Your task to perform on an android device: toggle notifications settings in the gmail app Image 0: 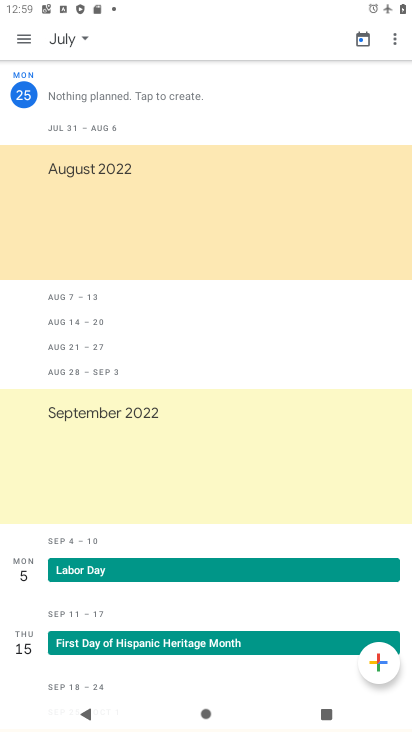
Step 0: press home button
Your task to perform on an android device: toggle notifications settings in the gmail app Image 1: 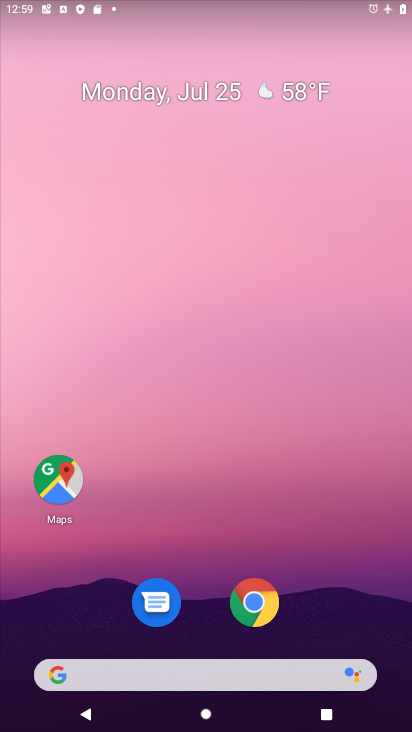
Step 1: drag from (193, 560) to (184, 183)
Your task to perform on an android device: toggle notifications settings in the gmail app Image 2: 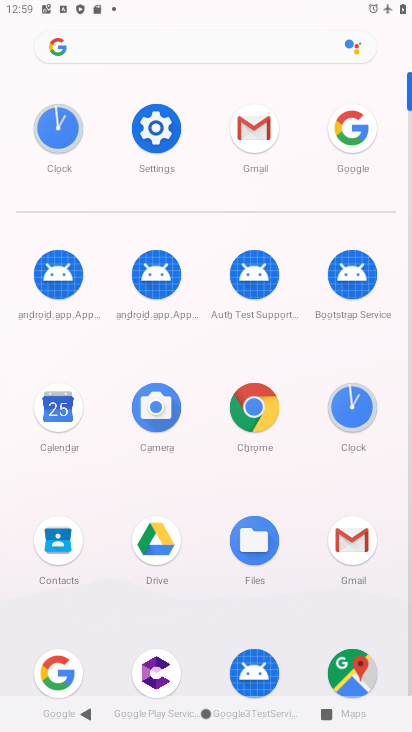
Step 2: click (235, 143)
Your task to perform on an android device: toggle notifications settings in the gmail app Image 3: 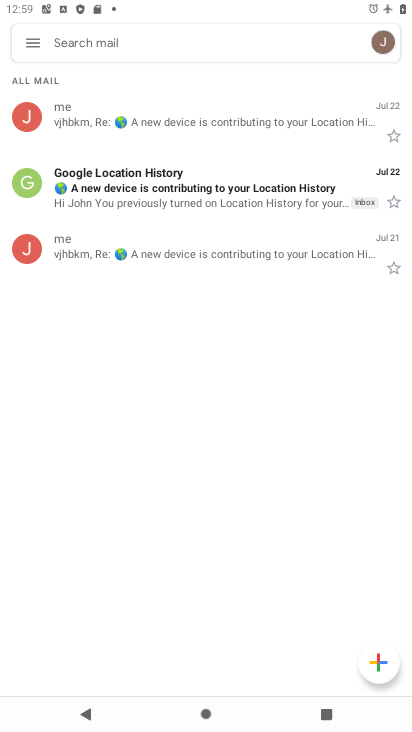
Step 3: click (32, 49)
Your task to perform on an android device: toggle notifications settings in the gmail app Image 4: 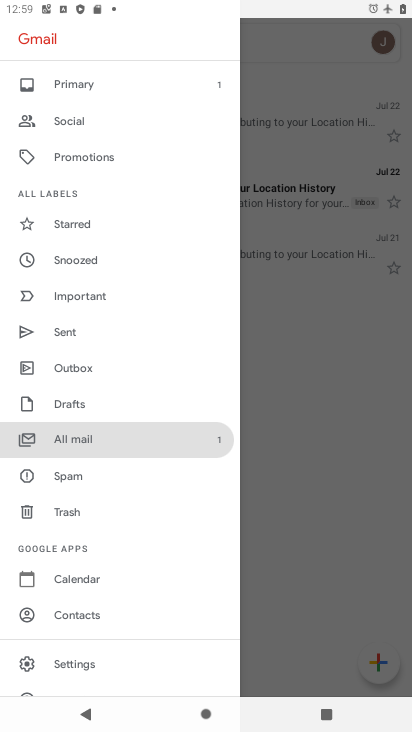
Step 4: click (90, 647)
Your task to perform on an android device: toggle notifications settings in the gmail app Image 5: 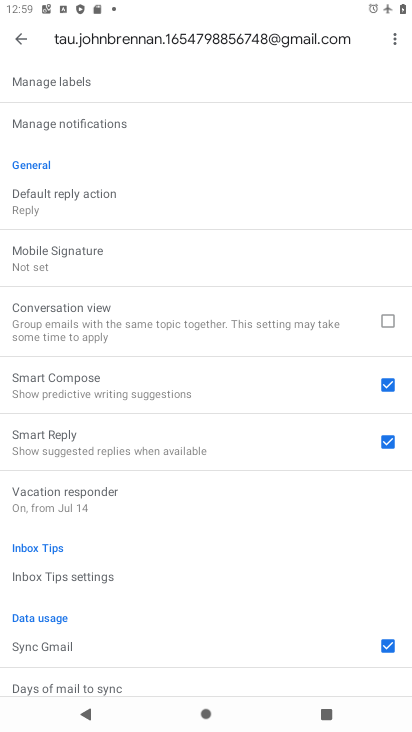
Step 5: drag from (159, 225) to (190, 469)
Your task to perform on an android device: toggle notifications settings in the gmail app Image 6: 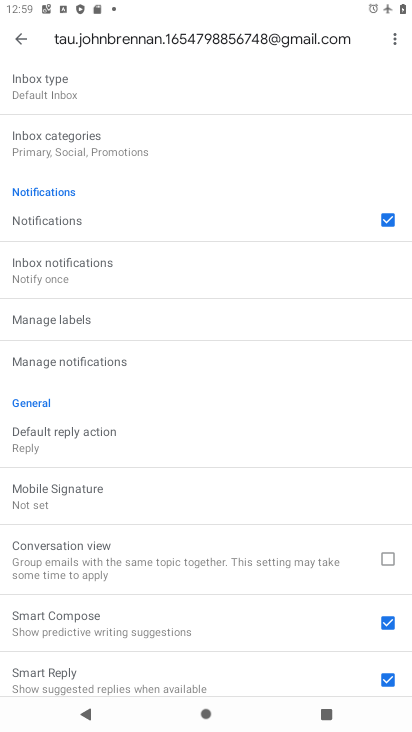
Step 6: click (123, 357)
Your task to perform on an android device: toggle notifications settings in the gmail app Image 7: 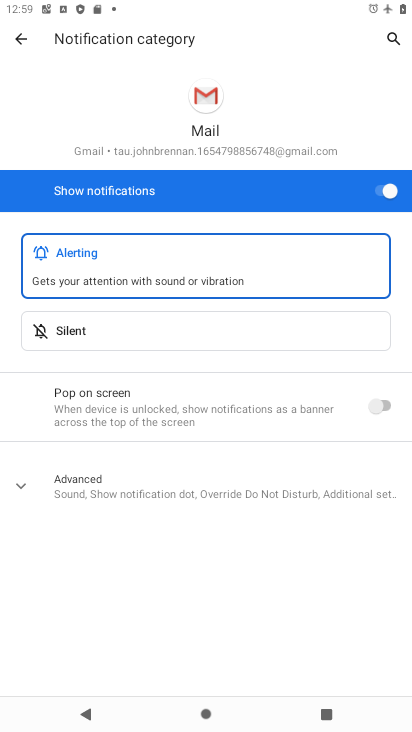
Step 7: click (375, 191)
Your task to perform on an android device: toggle notifications settings in the gmail app Image 8: 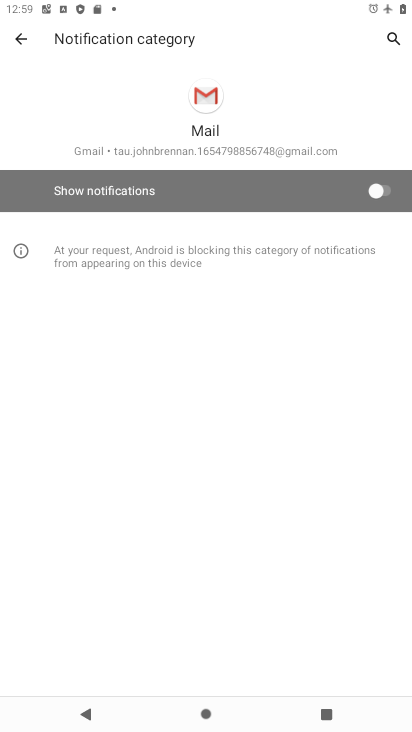
Step 8: task complete